Your task to perform on an android device: visit the assistant section in the google photos Image 0: 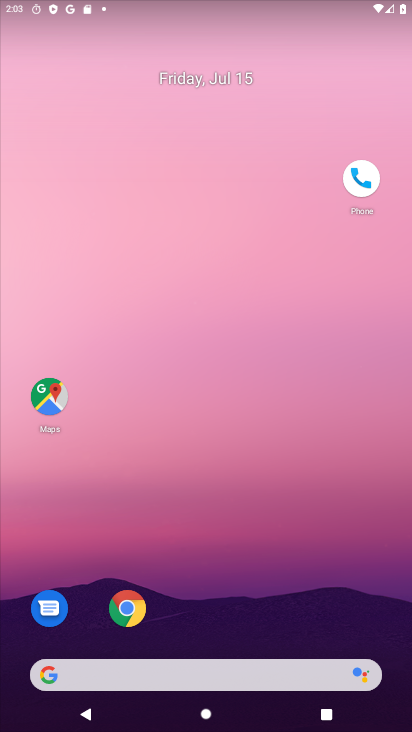
Step 0: drag from (190, 628) to (232, 87)
Your task to perform on an android device: visit the assistant section in the google photos Image 1: 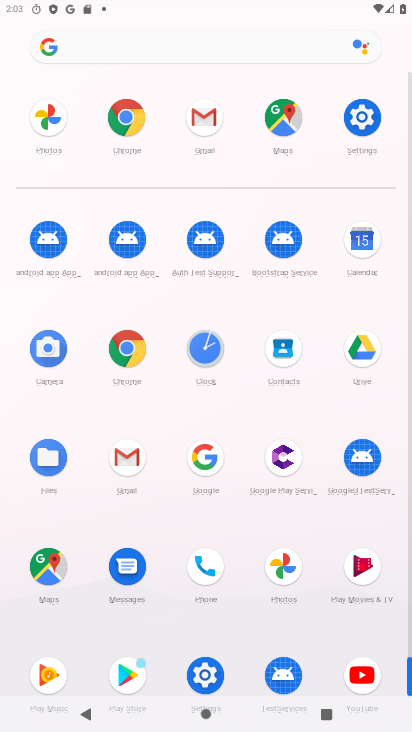
Step 1: click (289, 562)
Your task to perform on an android device: visit the assistant section in the google photos Image 2: 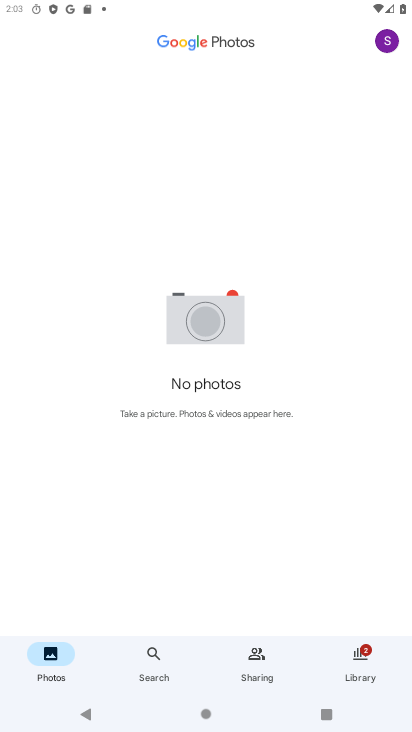
Step 2: drag from (230, 504) to (230, 249)
Your task to perform on an android device: visit the assistant section in the google photos Image 3: 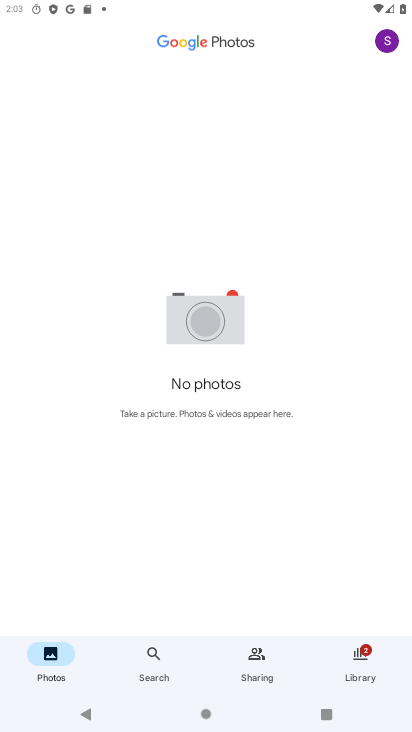
Step 3: drag from (291, 403) to (271, 215)
Your task to perform on an android device: visit the assistant section in the google photos Image 4: 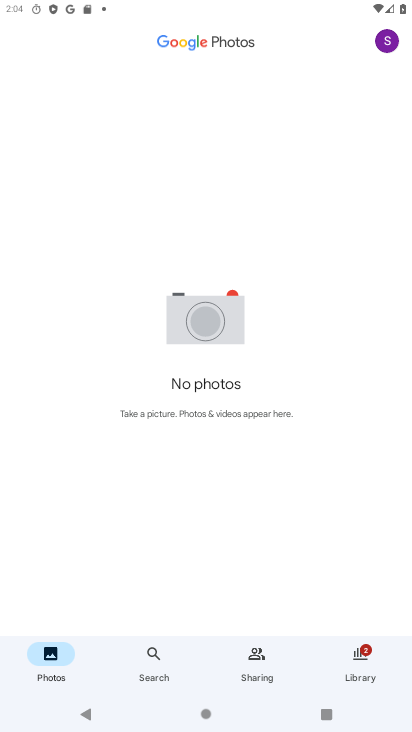
Step 4: drag from (252, 514) to (286, 236)
Your task to perform on an android device: visit the assistant section in the google photos Image 5: 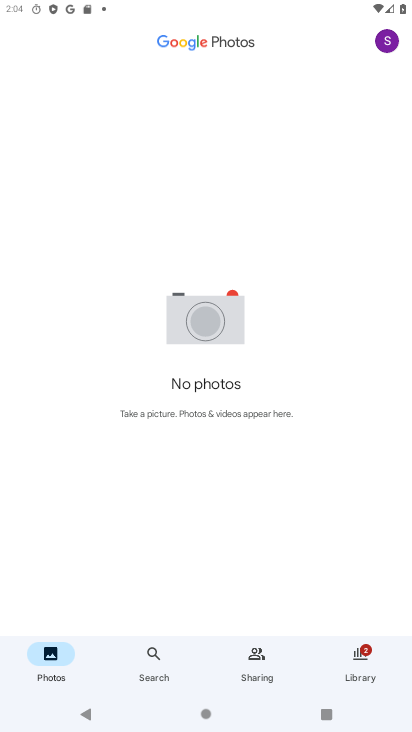
Step 5: press home button
Your task to perform on an android device: visit the assistant section in the google photos Image 6: 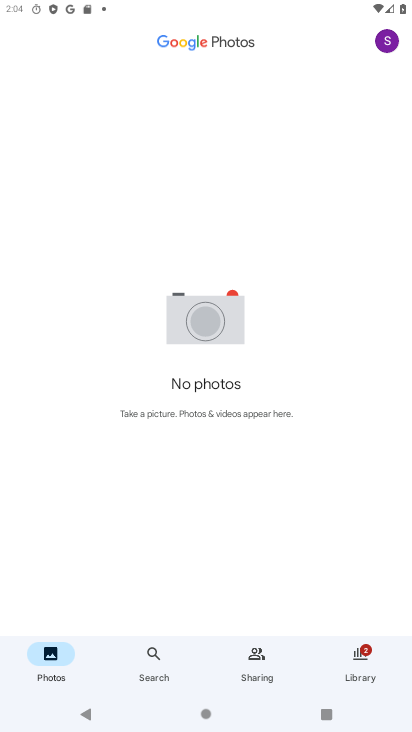
Step 6: press home button
Your task to perform on an android device: visit the assistant section in the google photos Image 7: 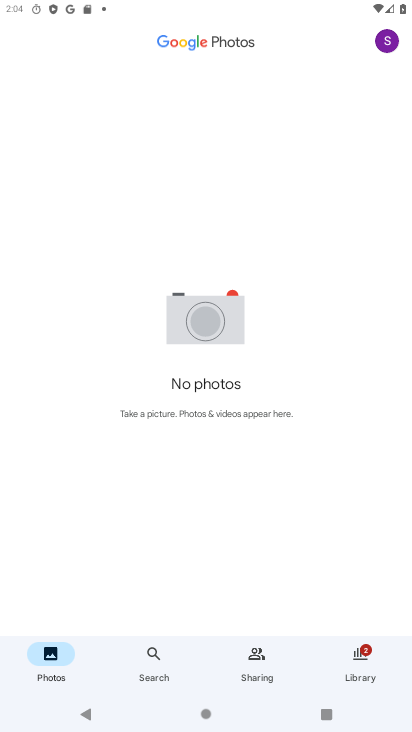
Step 7: click (220, 153)
Your task to perform on an android device: visit the assistant section in the google photos Image 8: 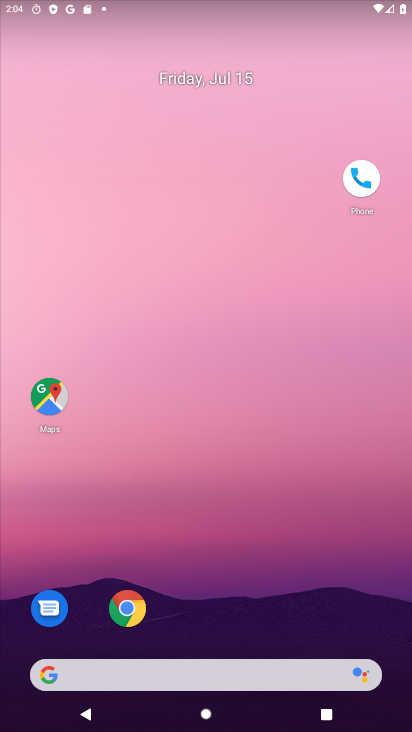
Step 8: drag from (198, 633) to (202, 224)
Your task to perform on an android device: visit the assistant section in the google photos Image 9: 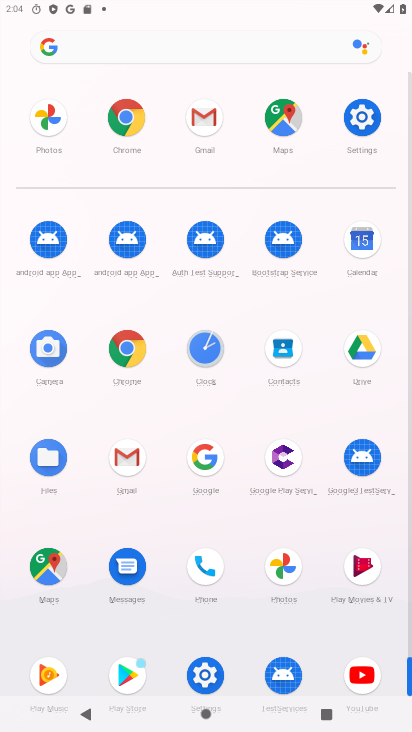
Step 9: click (275, 566)
Your task to perform on an android device: visit the assistant section in the google photos Image 10: 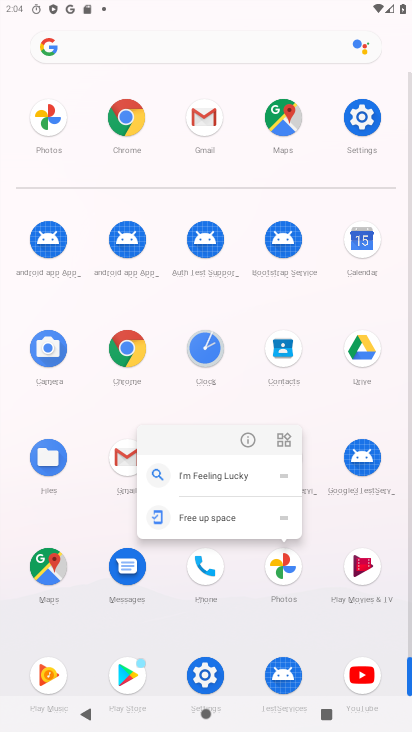
Step 10: click (244, 444)
Your task to perform on an android device: visit the assistant section in the google photos Image 11: 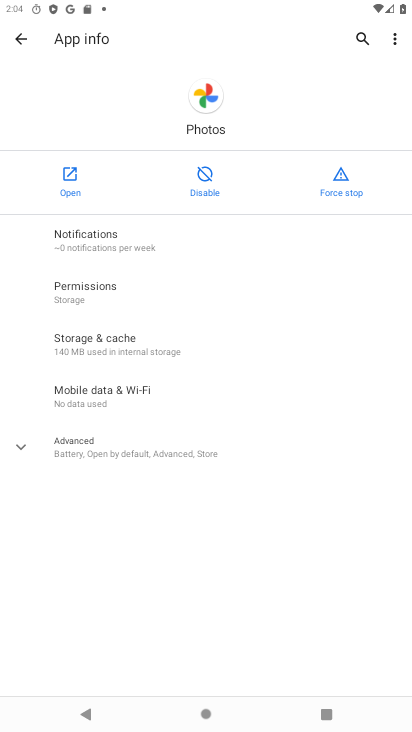
Step 11: click (63, 165)
Your task to perform on an android device: visit the assistant section in the google photos Image 12: 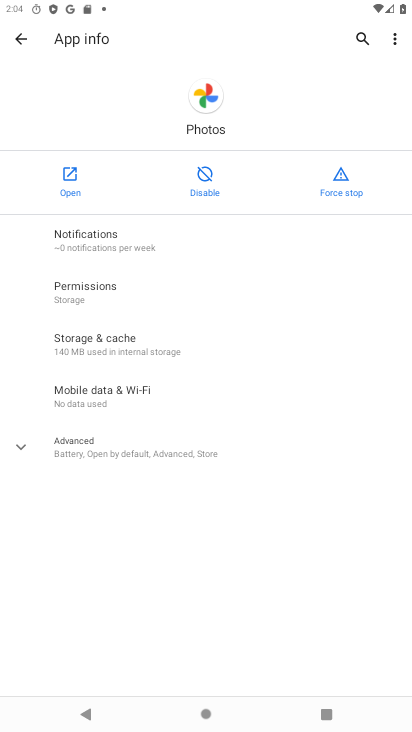
Step 12: click (63, 165)
Your task to perform on an android device: visit the assistant section in the google photos Image 13: 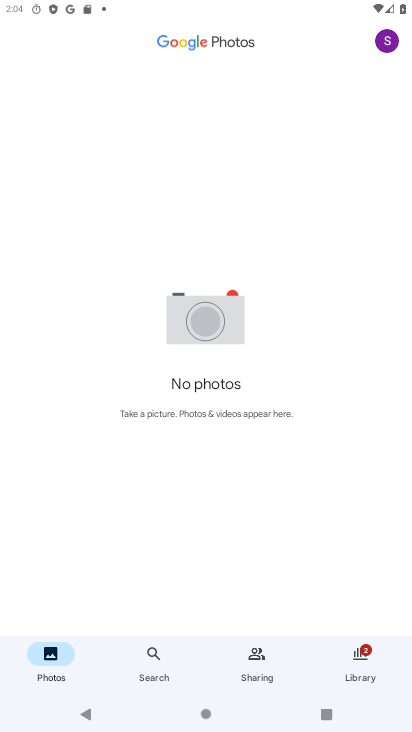
Step 13: task complete